Your task to perform on an android device: turn on wifi Image 0: 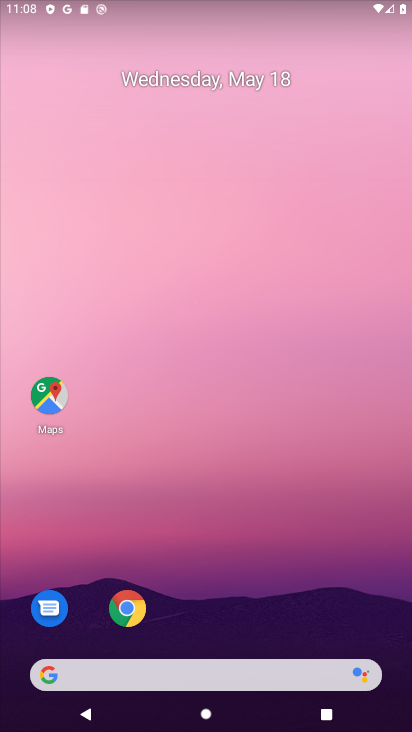
Step 0: drag from (189, 608) to (93, 198)
Your task to perform on an android device: turn on wifi Image 1: 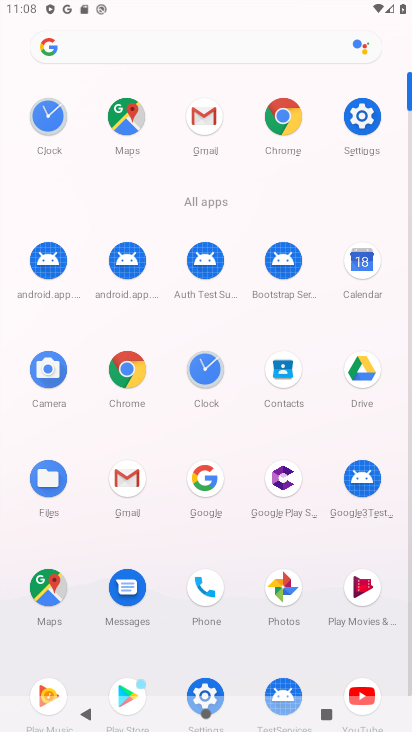
Step 1: click (368, 115)
Your task to perform on an android device: turn on wifi Image 2: 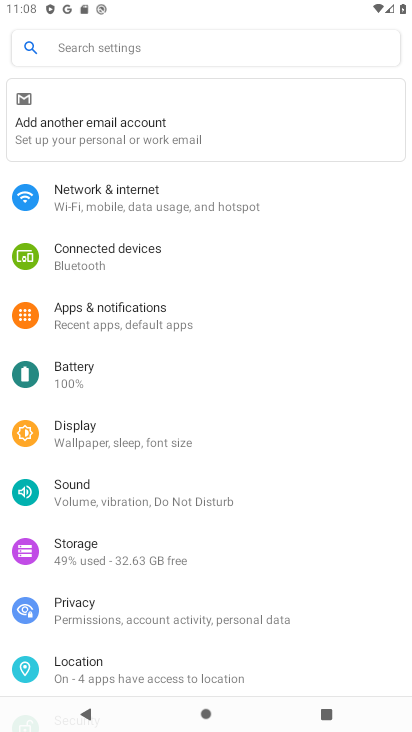
Step 2: click (122, 194)
Your task to perform on an android device: turn on wifi Image 3: 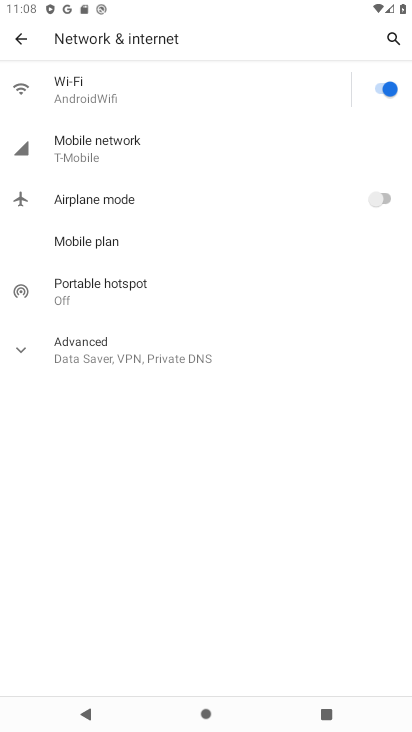
Step 3: task complete